Your task to perform on an android device: Go to privacy settings Image 0: 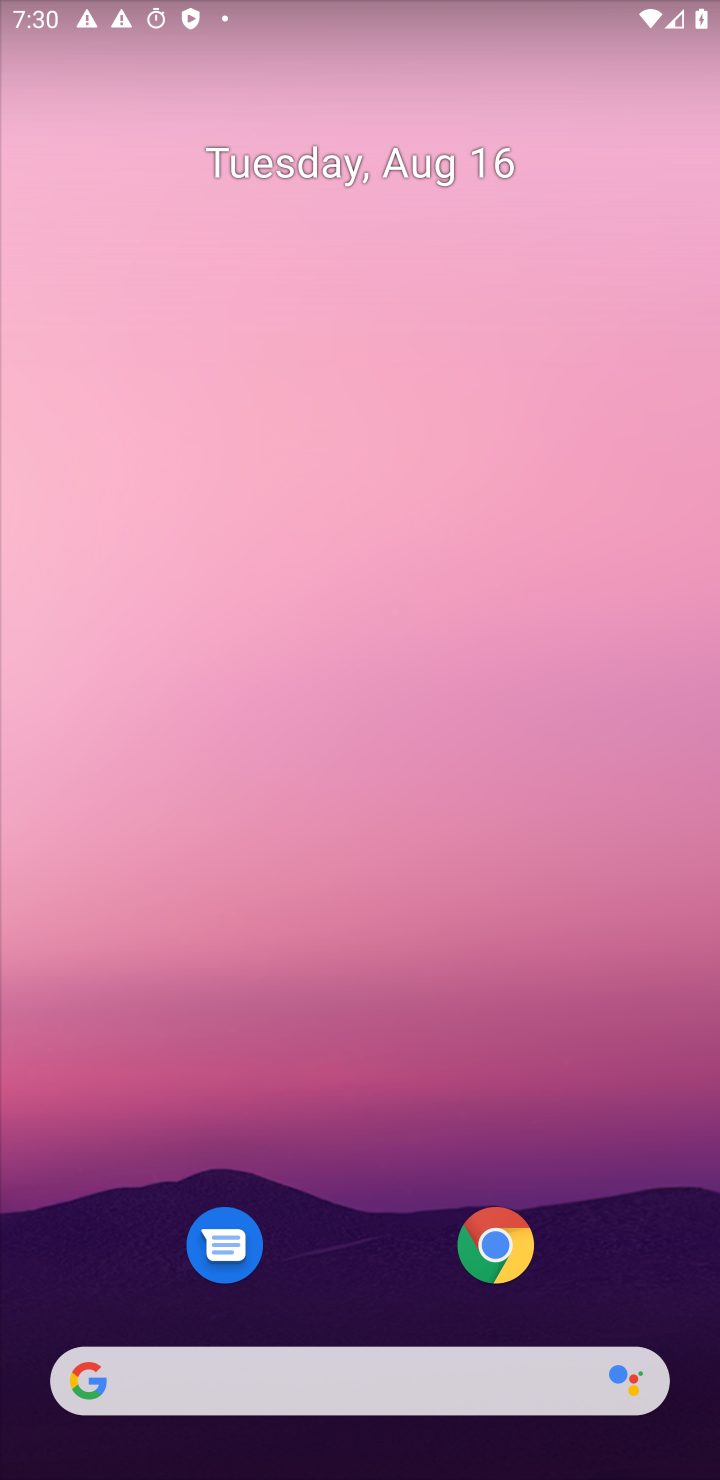
Step 0: press home button
Your task to perform on an android device: Go to privacy settings Image 1: 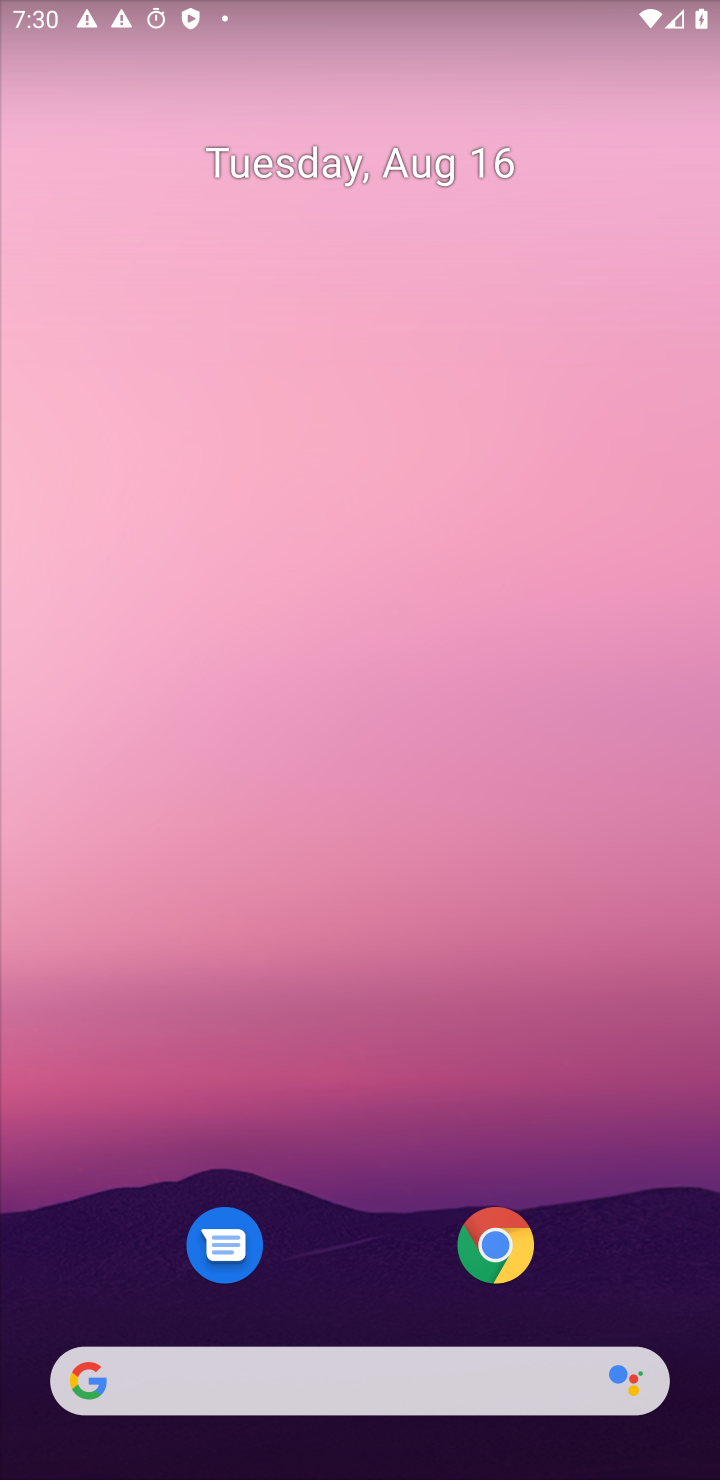
Step 1: drag from (371, 1248) to (438, 358)
Your task to perform on an android device: Go to privacy settings Image 2: 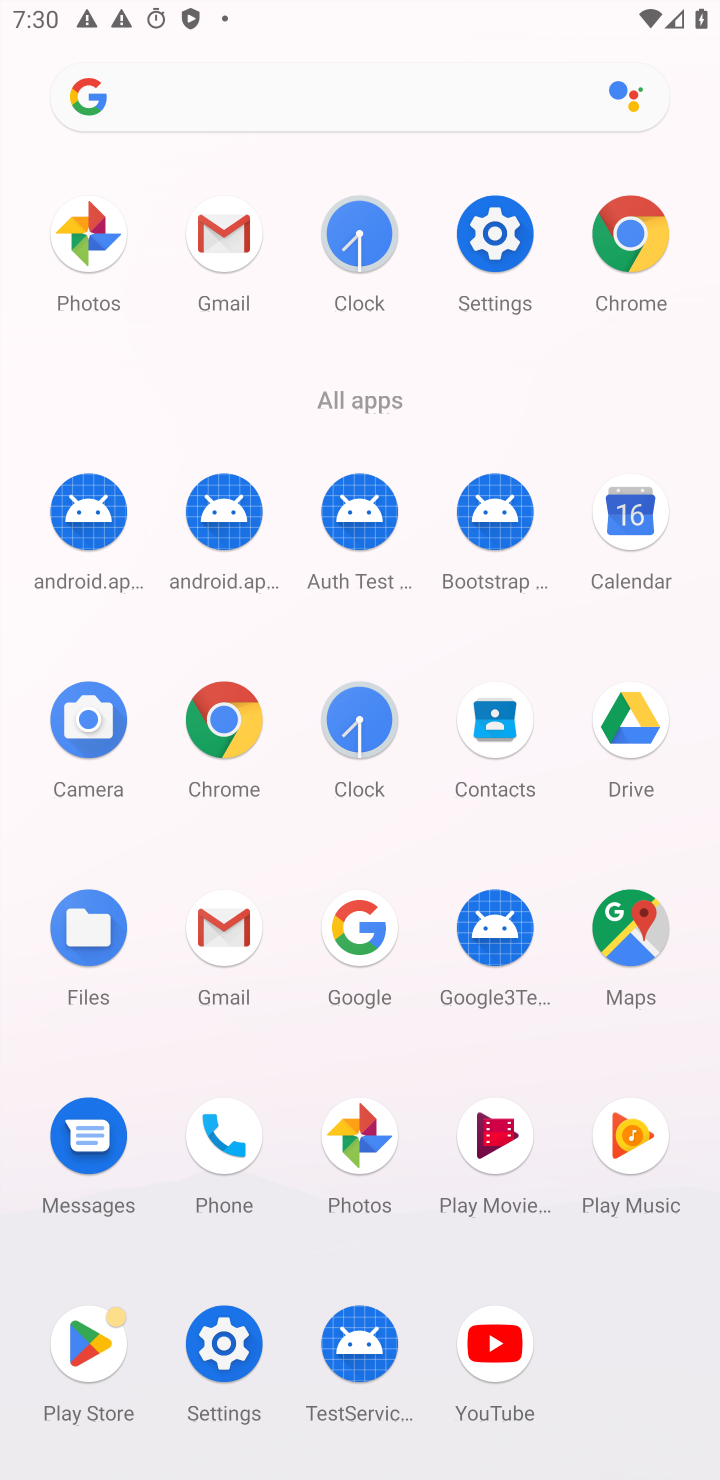
Step 2: click (489, 220)
Your task to perform on an android device: Go to privacy settings Image 3: 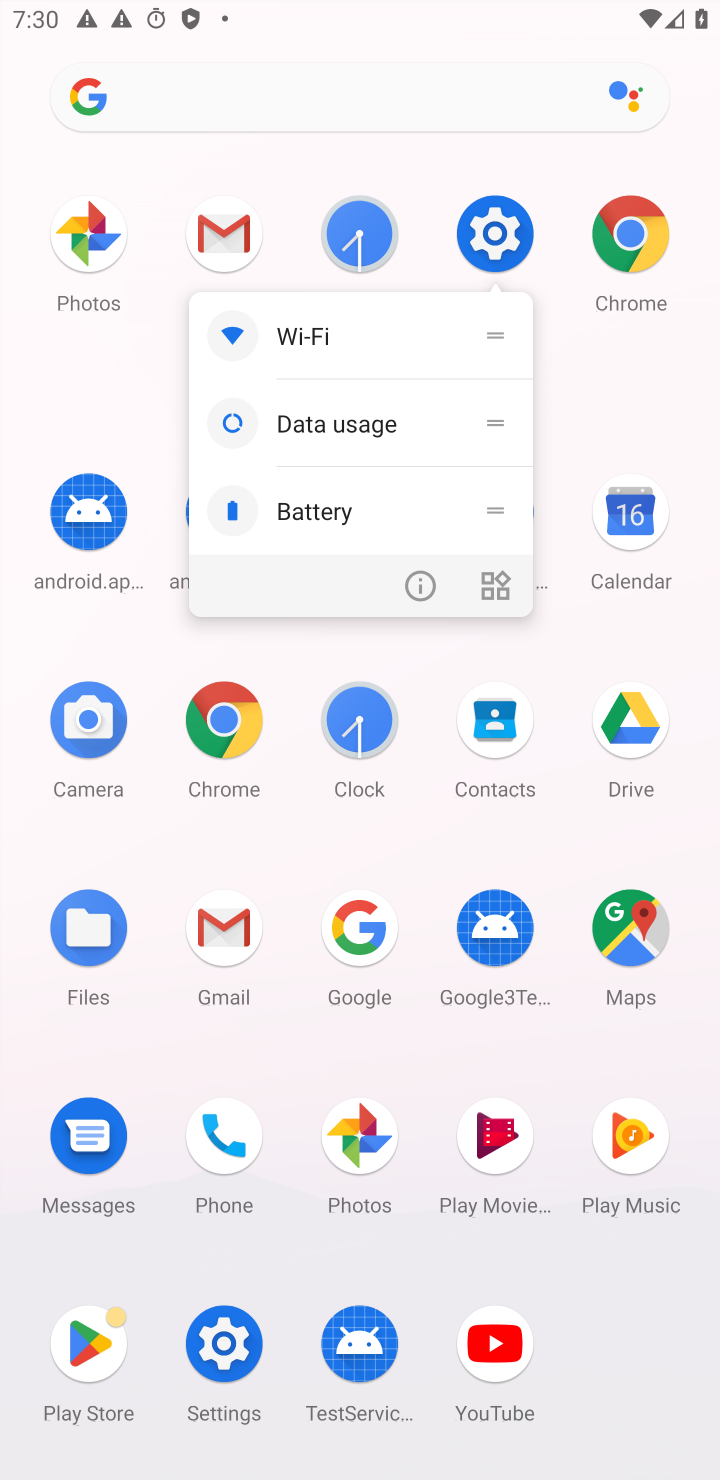
Step 3: click (499, 242)
Your task to perform on an android device: Go to privacy settings Image 4: 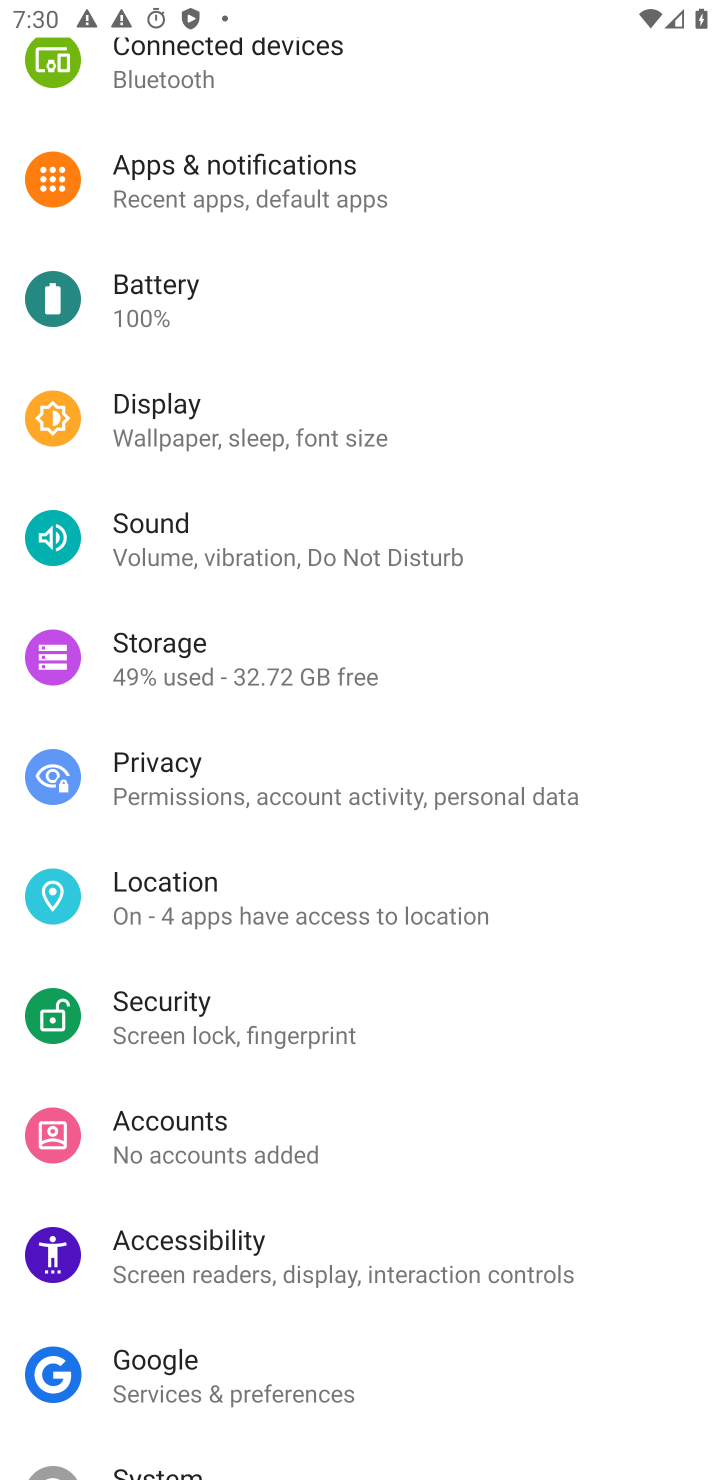
Step 4: click (174, 783)
Your task to perform on an android device: Go to privacy settings Image 5: 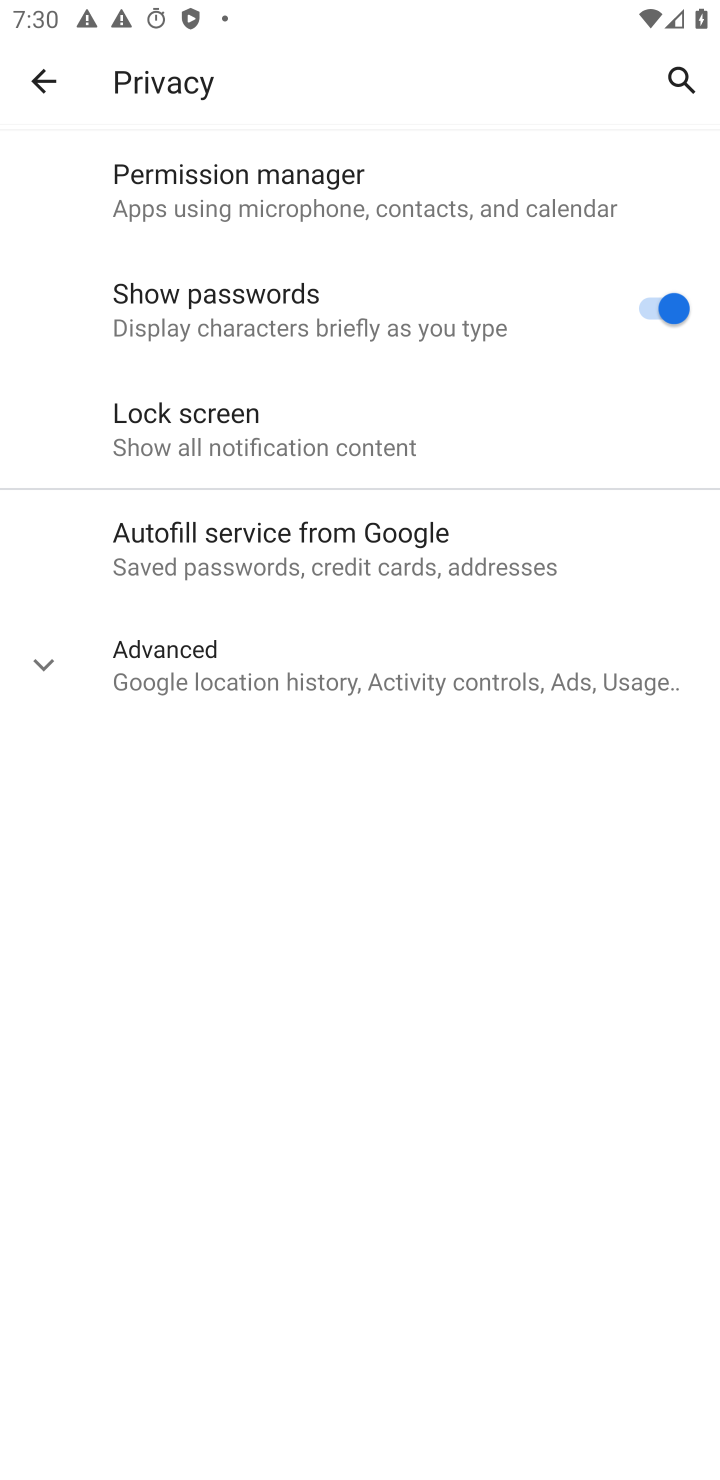
Step 5: task complete